Your task to perform on an android device: toggle notification dots Image 0: 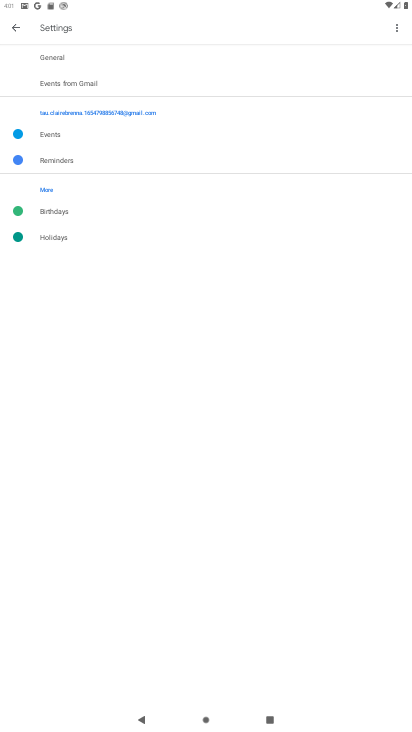
Step 0: press home button
Your task to perform on an android device: toggle notification dots Image 1: 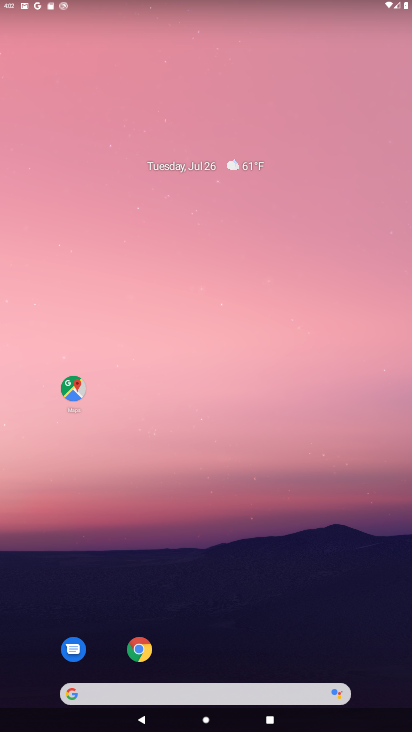
Step 1: drag from (303, 519) to (353, 150)
Your task to perform on an android device: toggle notification dots Image 2: 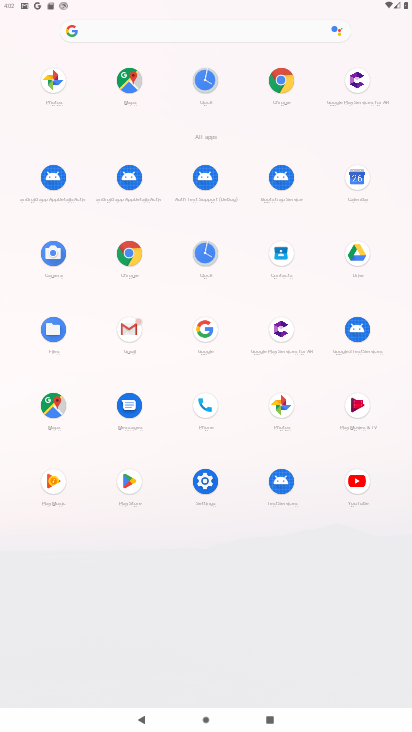
Step 2: click (196, 485)
Your task to perform on an android device: toggle notification dots Image 3: 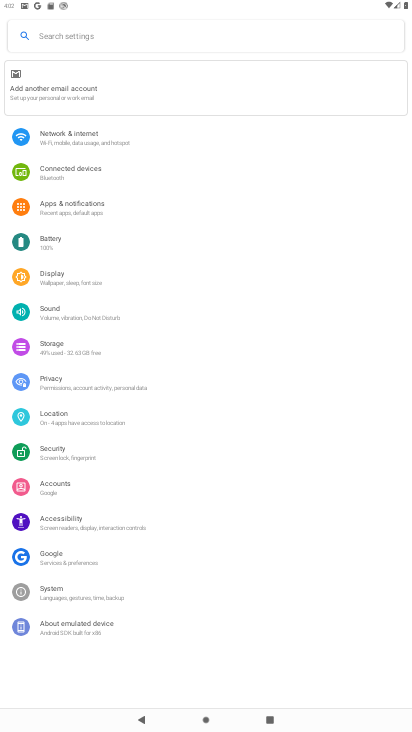
Step 3: task complete